Your task to perform on an android device: Open Youtube and go to the subscriptions tab Image 0: 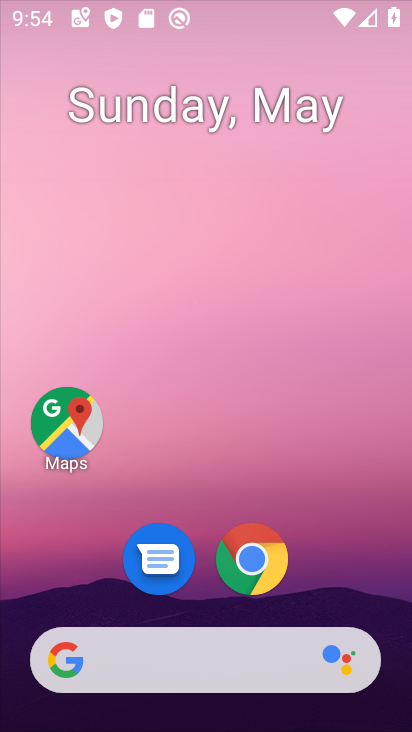
Step 0: press home button
Your task to perform on an android device: Open Youtube and go to the subscriptions tab Image 1: 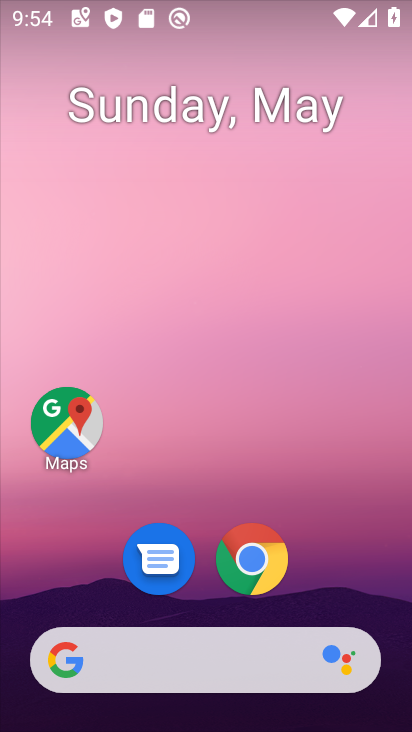
Step 1: drag from (328, 599) to (294, 92)
Your task to perform on an android device: Open Youtube and go to the subscriptions tab Image 2: 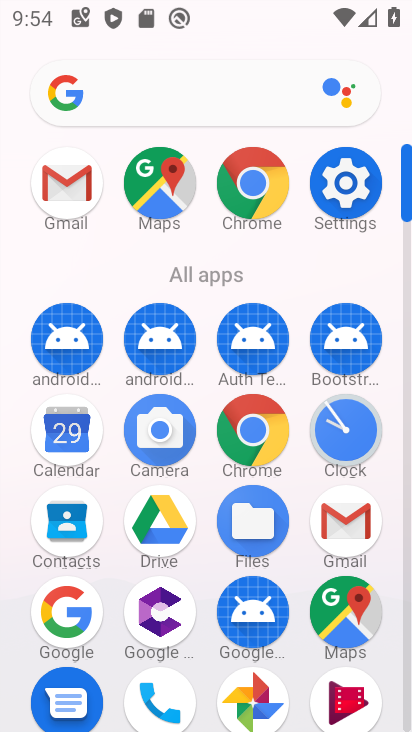
Step 2: drag from (384, 212) to (374, 131)
Your task to perform on an android device: Open Youtube and go to the subscriptions tab Image 3: 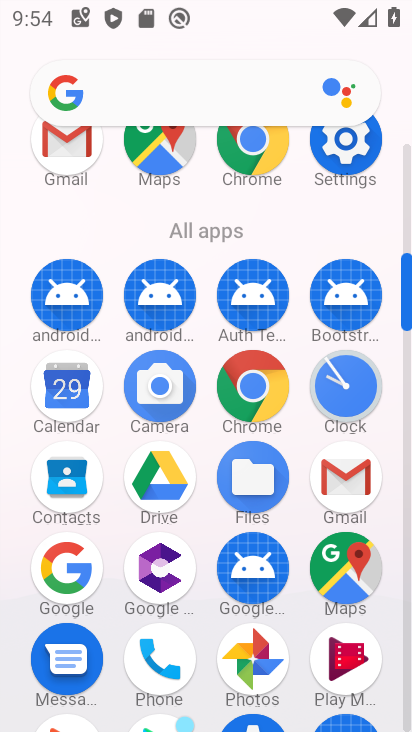
Step 3: drag from (392, 524) to (377, 125)
Your task to perform on an android device: Open Youtube and go to the subscriptions tab Image 4: 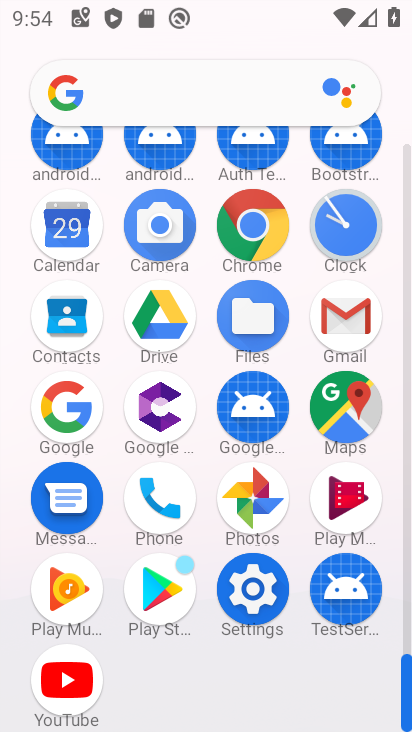
Step 4: click (57, 668)
Your task to perform on an android device: Open Youtube and go to the subscriptions tab Image 5: 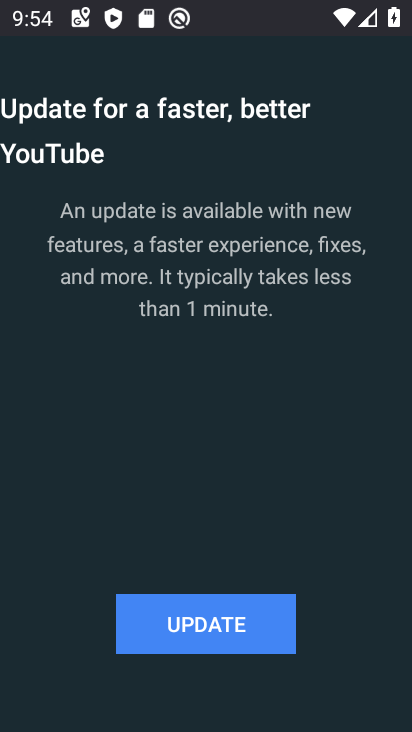
Step 5: click (209, 630)
Your task to perform on an android device: Open Youtube and go to the subscriptions tab Image 6: 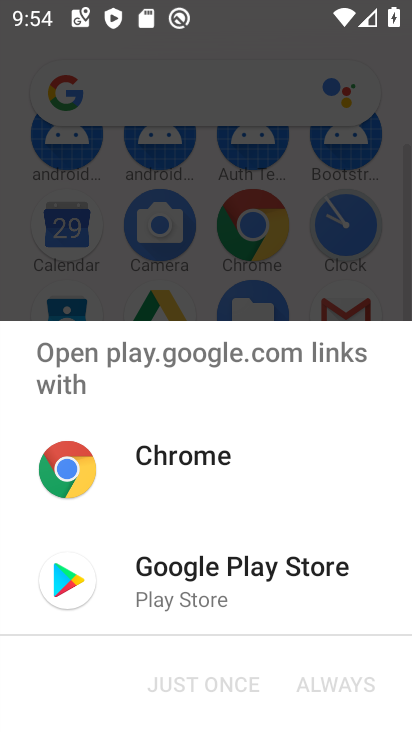
Step 6: click (61, 583)
Your task to perform on an android device: Open Youtube and go to the subscriptions tab Image 7: 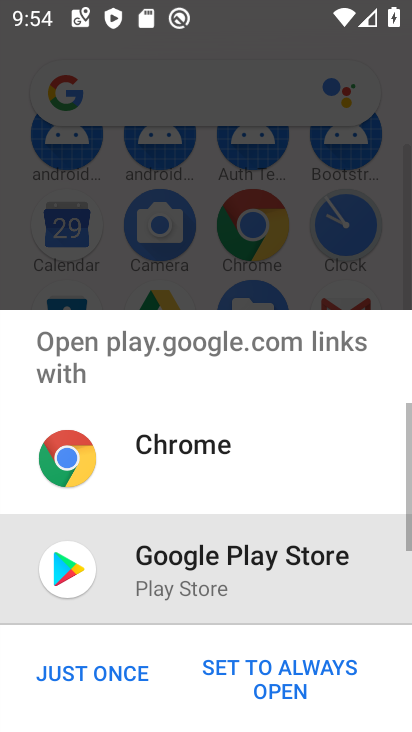
Step 7: click (99, 674)
Your task to perform on an android device: Open Youtube and go to the subscriptions tab Image 8: 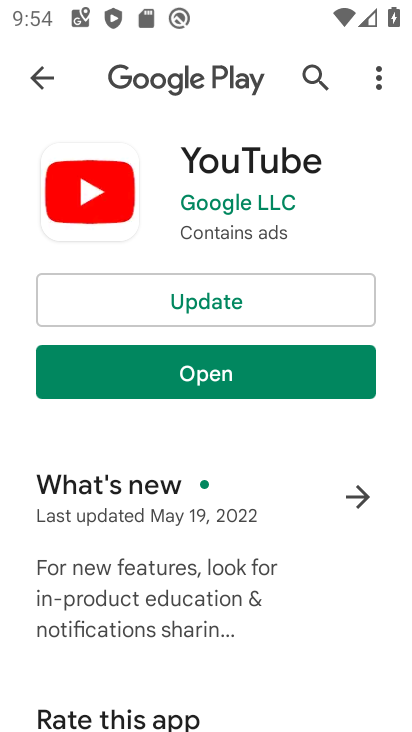
Step 8: click (276, 292)
Your task to perform on an android device: Open Youtube and go to the subscriptions tab Image 9: 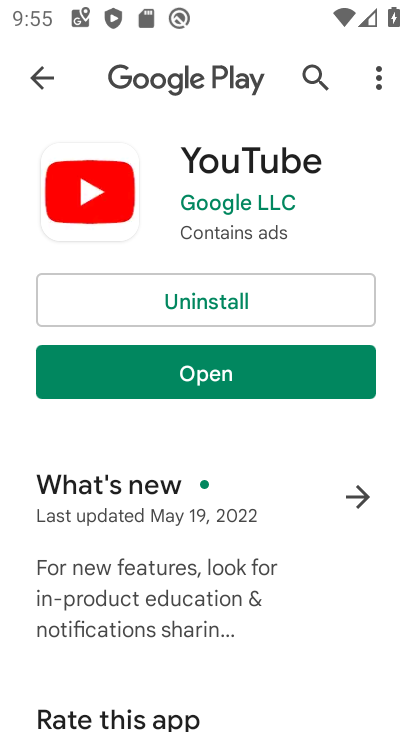
Step 9: click (132, 377)
Your task to perform on an android device: Open Youtube and go to the subscriptions tab Image 10: 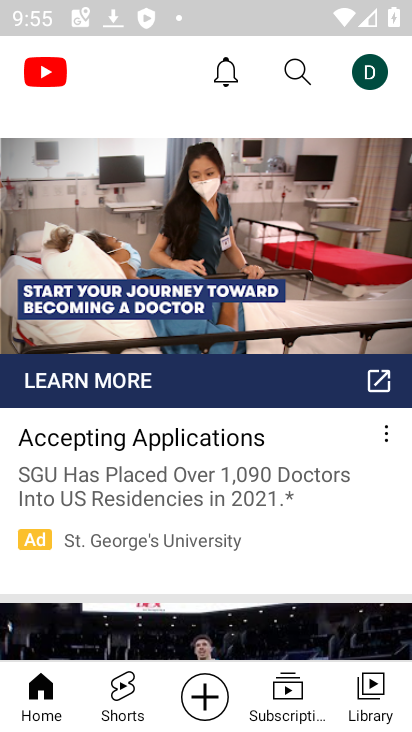
Step 10: click (290, 701)
Your task to perform on an android device: Open Youtube and go to the subscriptions tab Image 11: 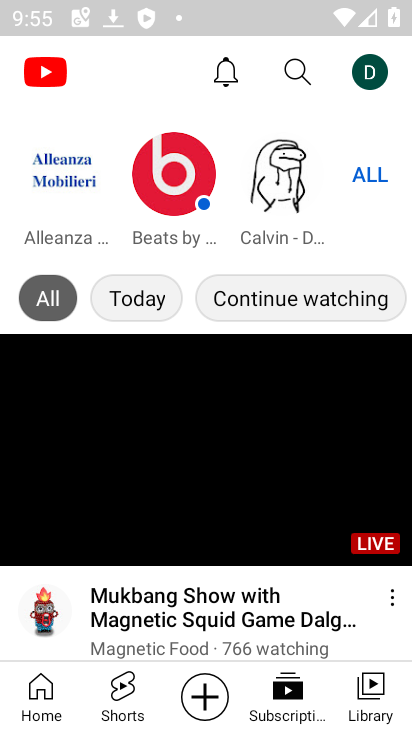
Step 11: task complete